Your task to perform on an android device: toggle javascript in the chrome app Image 0: 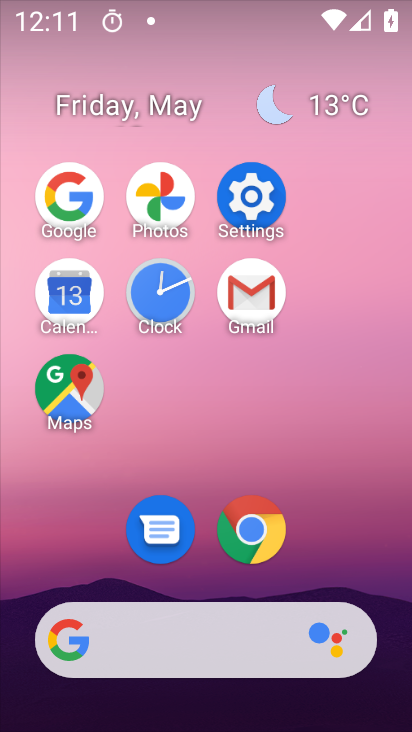
Step 0: click (246, 540)
Your task to perform on an android device: toggle javascript in the chrome app Image 1: 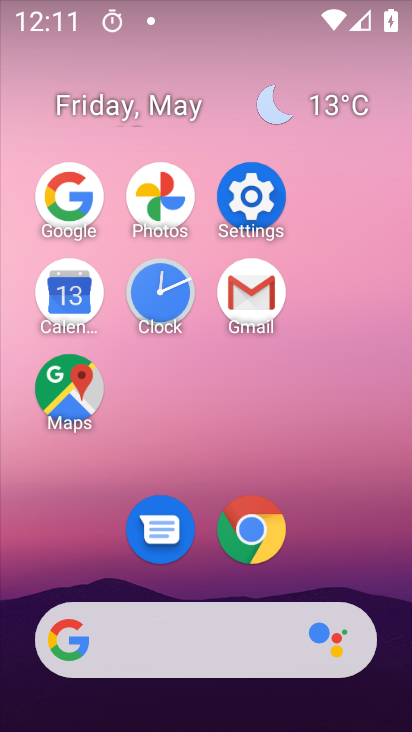
Step 1: click (242, 518)
Your task to perform on an android device: toggle javascript in the chrome app Image 2: 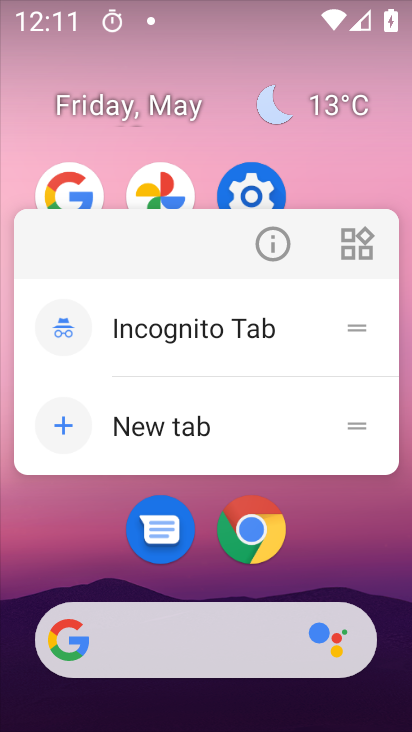
Step 2: click (248, 529)
Your task to perform on an android device: toggle javascript in the chrome app Image 3: 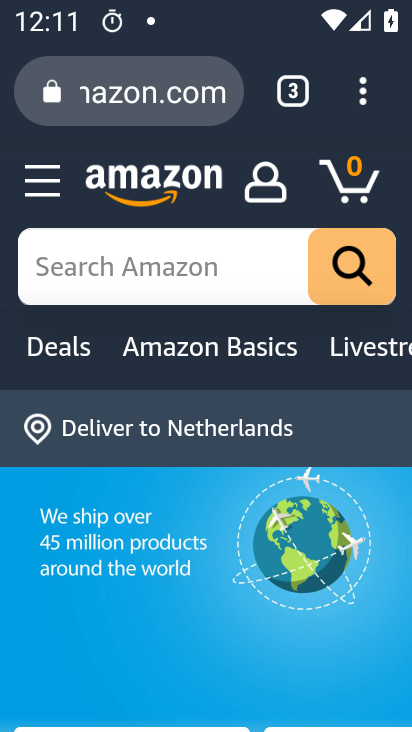
Step 3: click (364, 106)
Your task to perform on an android device: toggle javascript in the chrome app Image 4: 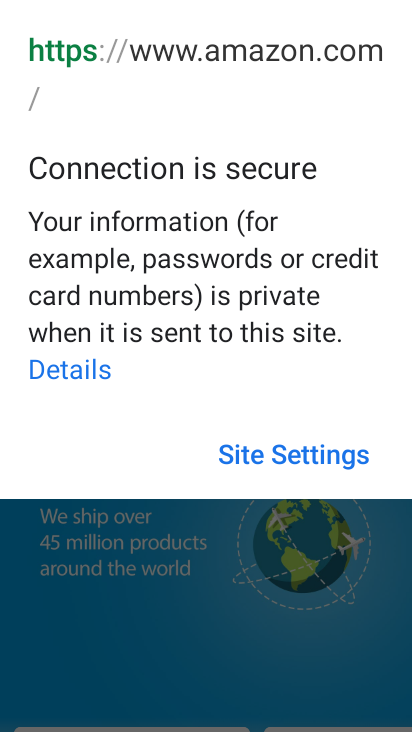
Step 4: click (369, 632)
Your task to perform on an android device: toggle javascript in the chrome app Image 5: 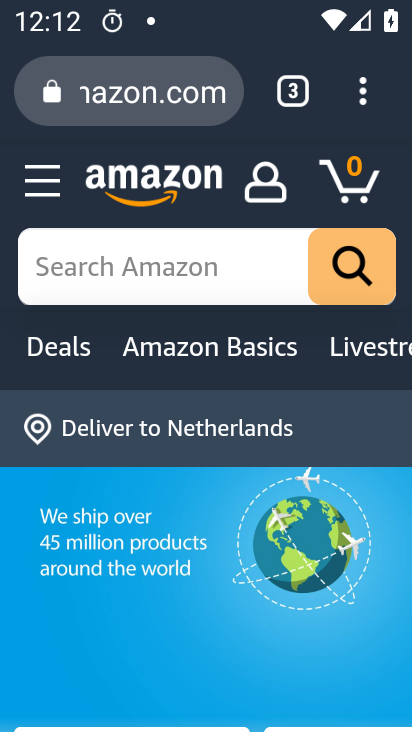
Step 5: click (378, 96)
Your task to perform on an android device: toggle javascript in the chrome app Image 6: 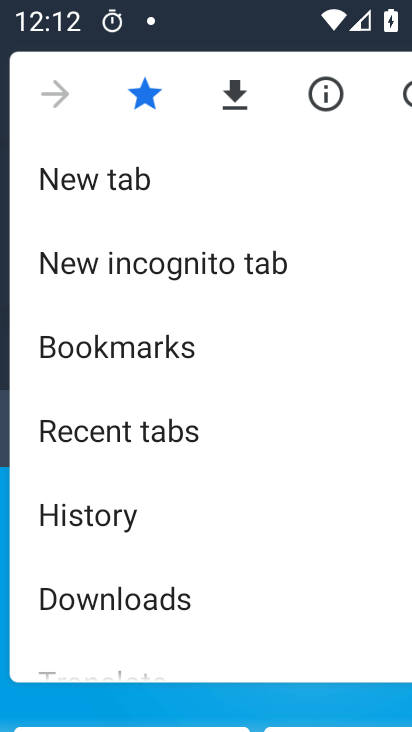
Step 6: drag from (250, 562) to (264, 144)
Your task to perform on an android device: toggle javascript in the chrome app Image 7: 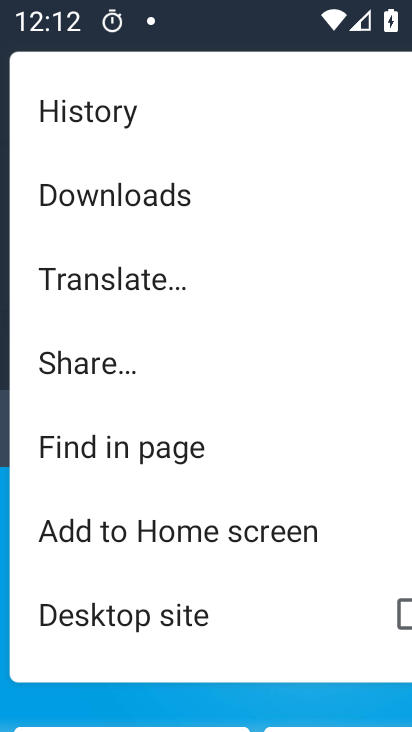
Step 7: drag from (179, 540) to (209, 195)
Your task to perform on an android device: toggle javascript in the chrome app Image 8: 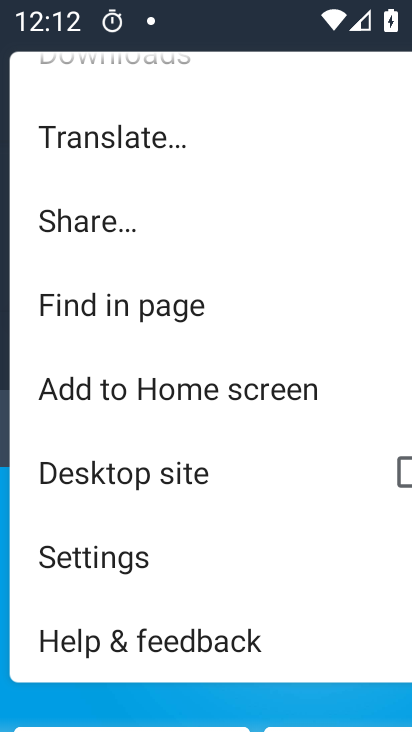
Step 8: click (192, 575)
Your task to perform on an android device: toggle javascript in the chrome app Image 9: 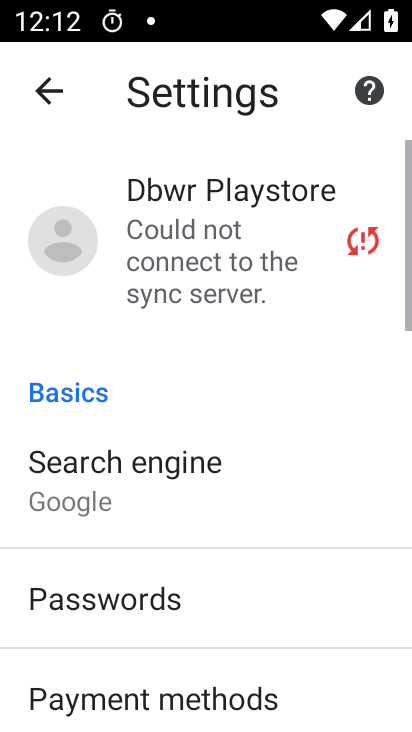
Step 9: drag from (188, 536) to (223, 144)
Your task to perform on an android device: toggle javascript in the chrome app Image 10: 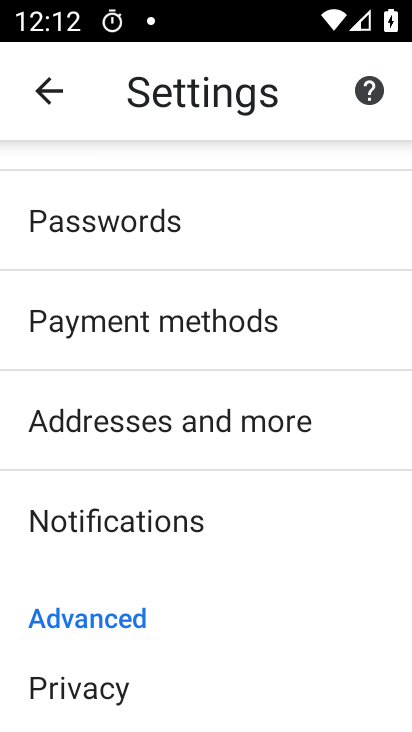
Step 10: drag from (206, 617) to (238, 268)
Your task to perform on an android device: toggle javascript in the chrome app Image 11: 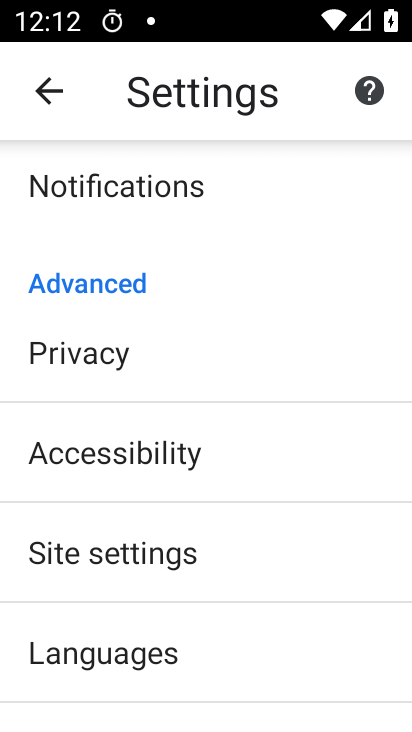
Step 11: click (179, 545)
Your task to perform on an android device: toggle javascript in the chrome app Image 12: 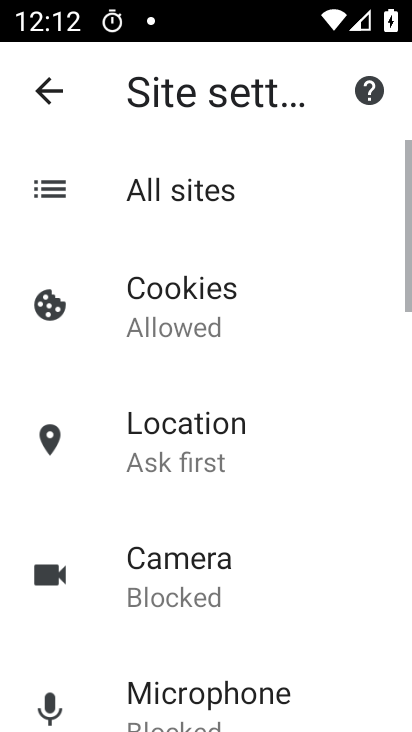
Step 12: drag from (177, 521) to (206, 176)
Your task to perform on an android device: toggle javascript in the chrome app Image 13: 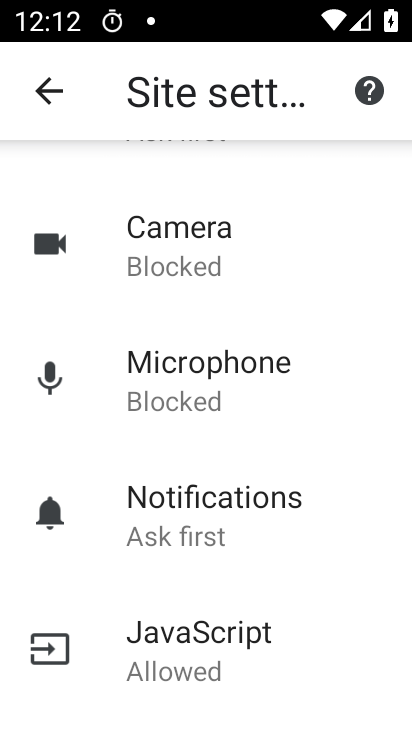
Step 13: click (222, 621)
Your task to perform on an android device: toggle javascript in the chrome app Image 14: 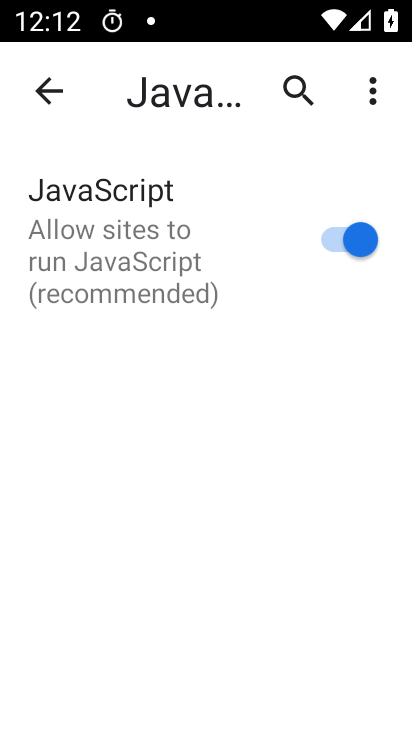
Step 14: click (379, 230)
Your task to perform on an android device: toggle javascript in the chrome app Image 15: 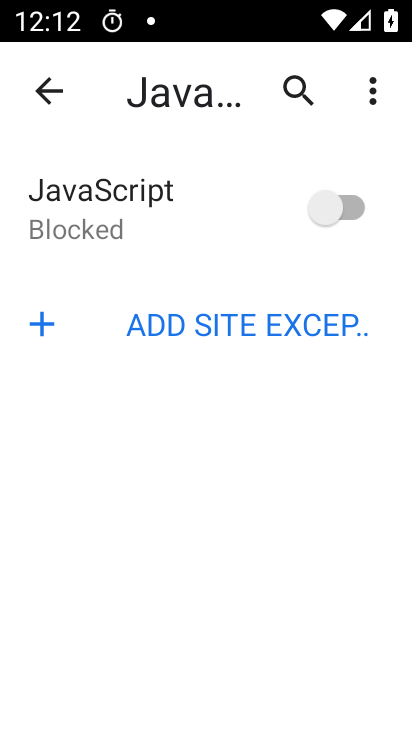
Step 15: task complete